Your task to perform on an android device: Go to calendar. Show me events next week Image 0: 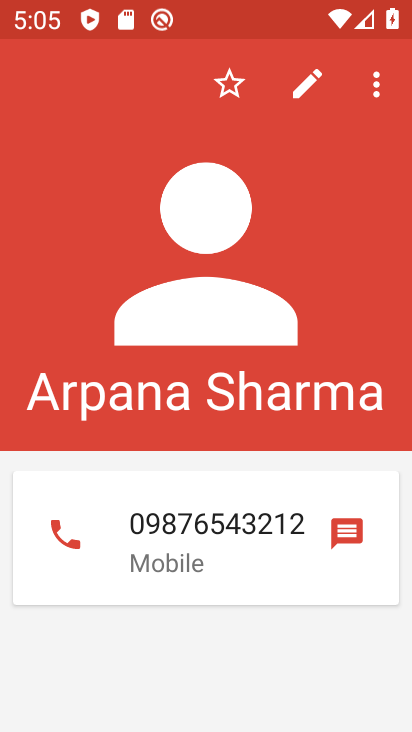
Step 0: press back button
Your task to perform on an android device: Go to calendar. Show me events next week Image 1: 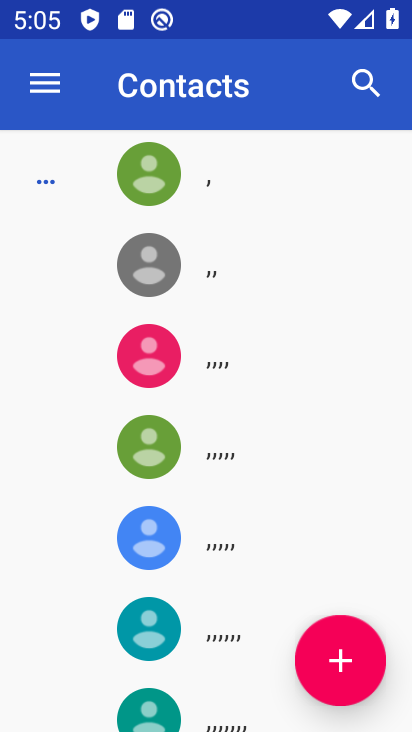
Step 1: press back button
Your task to perform on an android device: Go to calendar. Show me events next week Image 2: 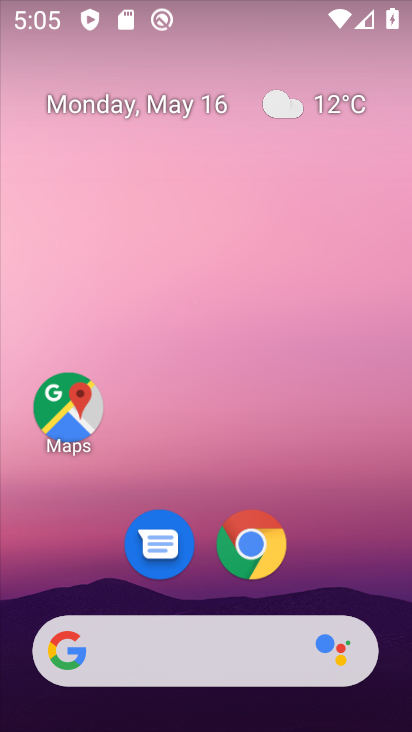
Step 2: drag from (331, 585) to (274, 84)
Your task to perform on an android device: Go to calendar. Show me events next week Image 3: 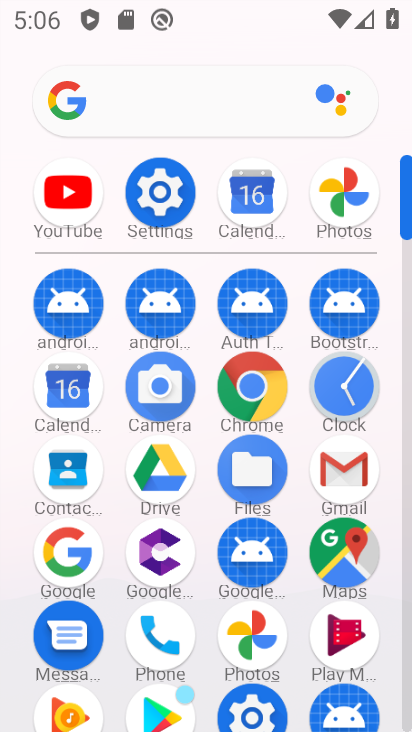
Step 3: click (69, 386)
Your task to perform on an android device: Go to calendar. Show me events next week Image 4: 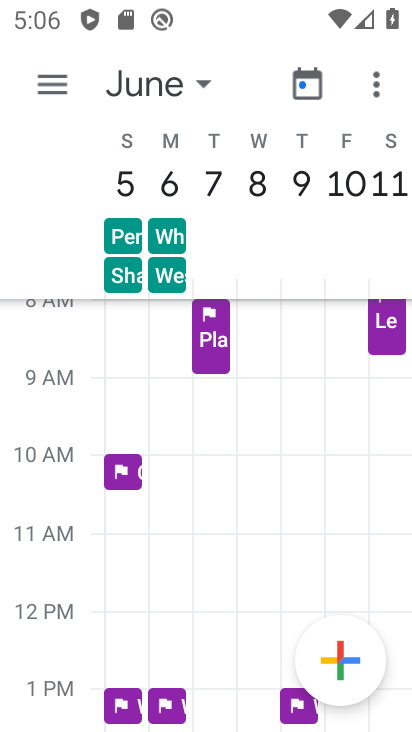
Step 4: click (313, 82)
Your task to perform on an android device: Go to calendar. Show me events next week Image 5: 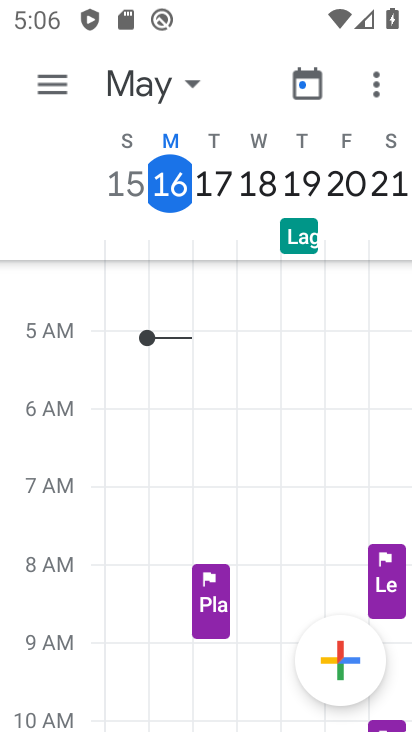
Step 5: click (188, 80)
Your task to perform on an android device: Go to calendar. Show me events next week Image 6: 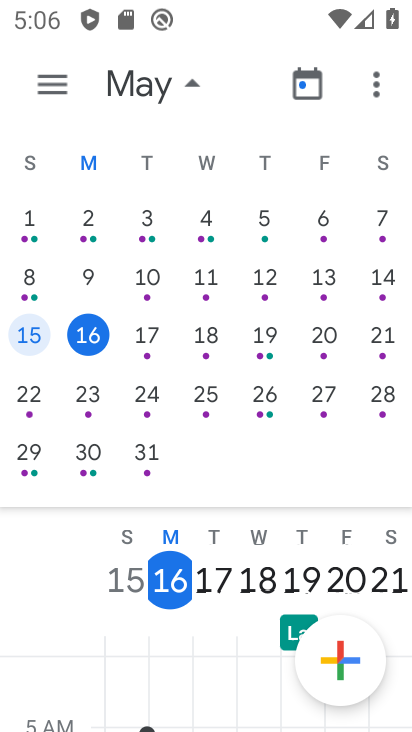
Step 6: click (96, 391)
Your task to perform on an android device: Go to calendar. Show me events next week Image 7: 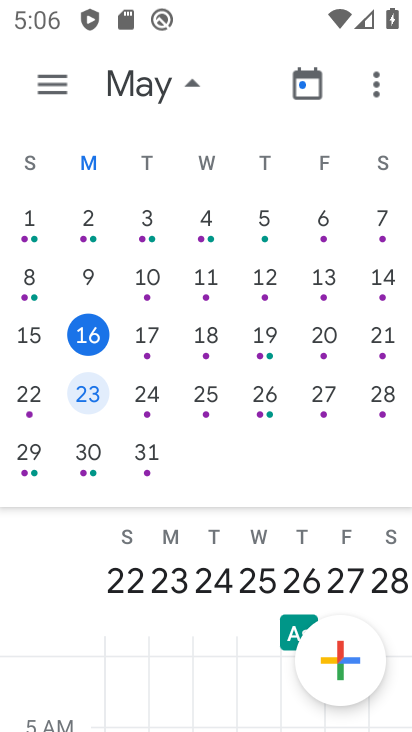
Step 7: click (65, 91)
Your task to perform on an android device: Go to calendar. Show me events next week Image 8: 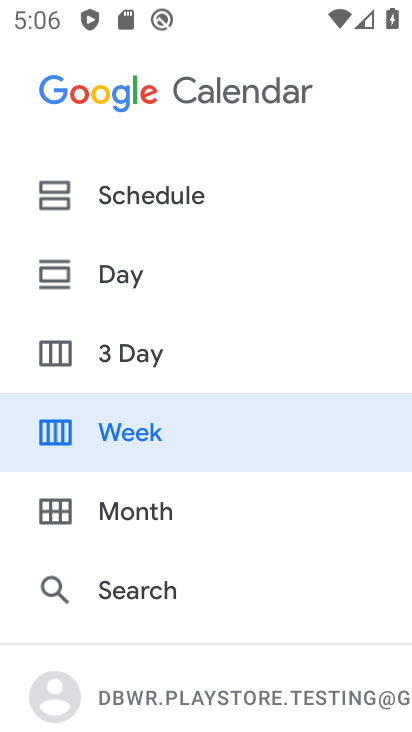
Step 8: click (135, 421)
Your task to perform on an android device: Go to calendar. Show me events next week Image 9: 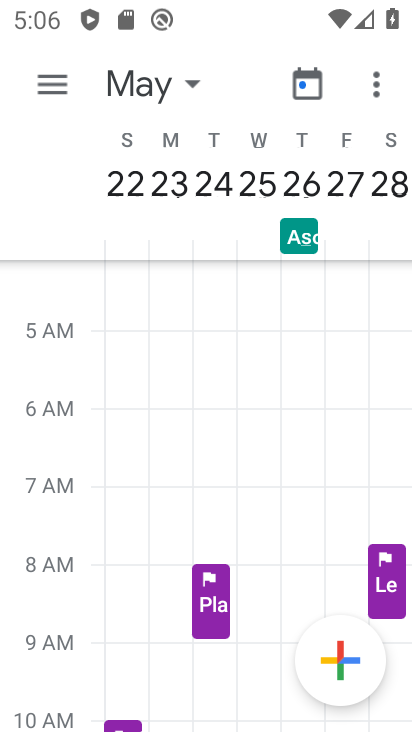
Step 9: task complete